Your task to perform on an android device: Go to Google maps Image 0: 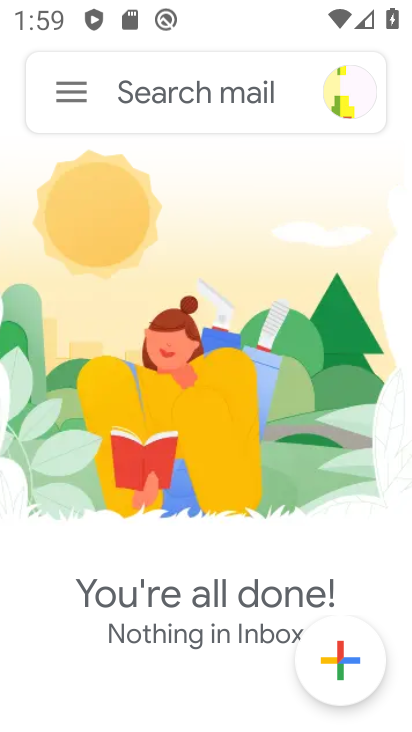
Step 0: press back button
Your task to perform on an android device: Go to Google maps Image 1: 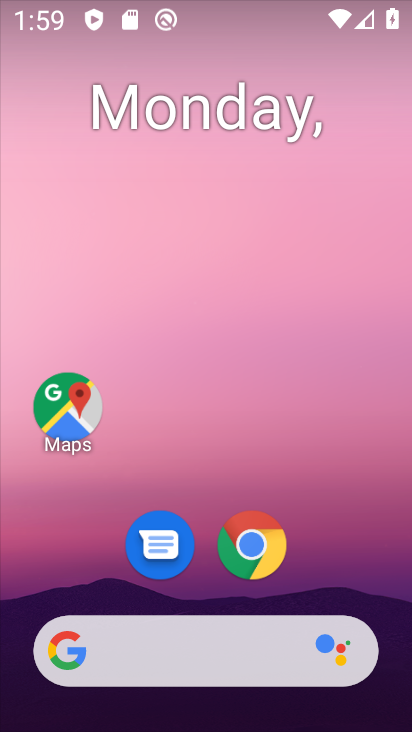
Step 1: click (74, 402)
Your task to perform on an android device: Go to Google maps Image 2: 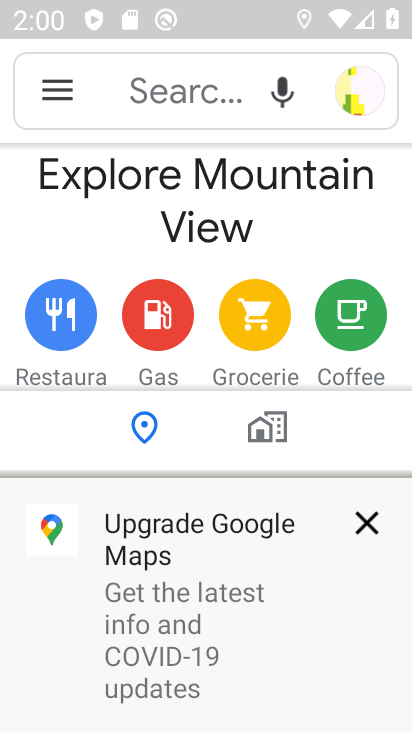
Step 2: task complete